Your task to perform on an android device: refresh tabs in the chrome app Image 0: 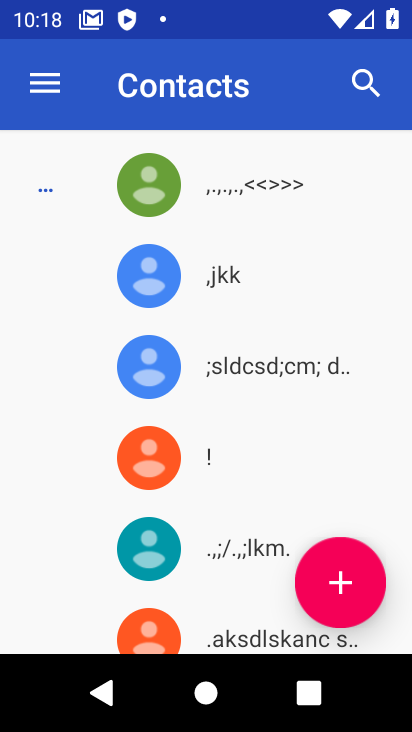
Step 0: press home button
Your task to perform on an android device: refresh tabs in the chrome app Image 1: 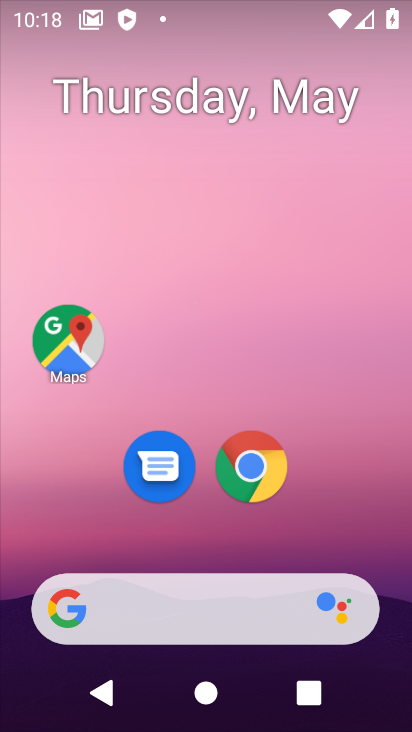
Step 1: click (264, 466)
Your task to perform on an android device: refresh tabs in the chrome app Image 2: 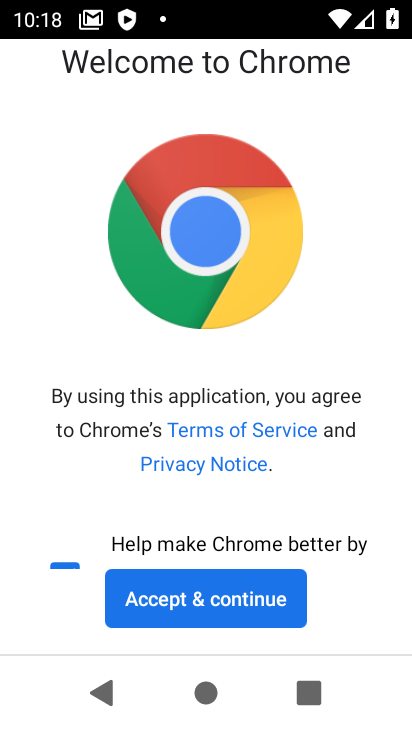
Step 2: click (204, 594)
Your task to perform on an android device: refresh tabs in the chrome app Image 3: 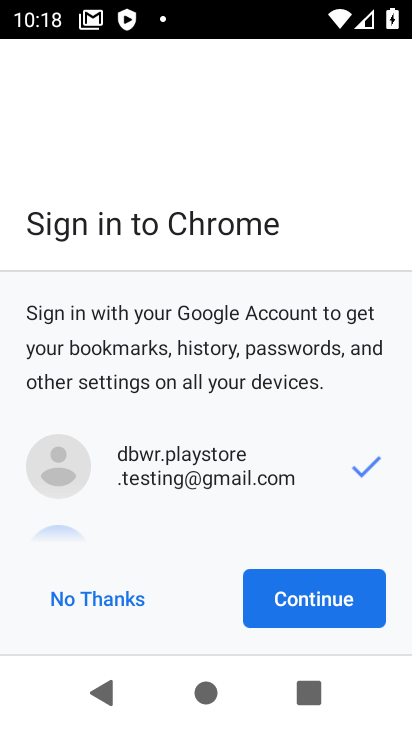
Step 3: click (287, 590)
Your task to perform on an android device: refresh tabs in the chrome app Image 4: 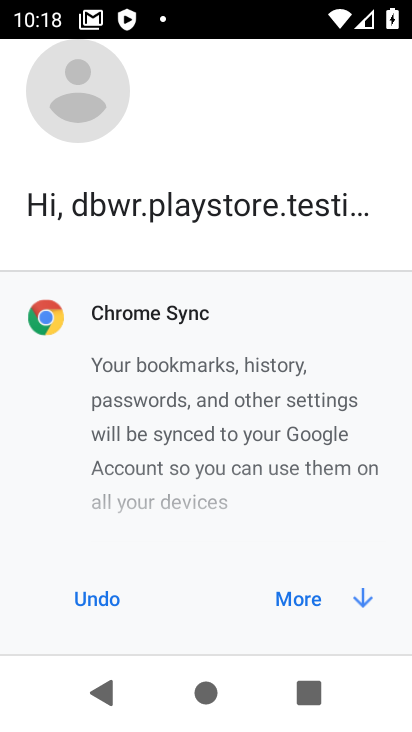
Step 4: click (300, 604)
Your task to perform on an android device: refresh tabs in the chrome app Image 5: 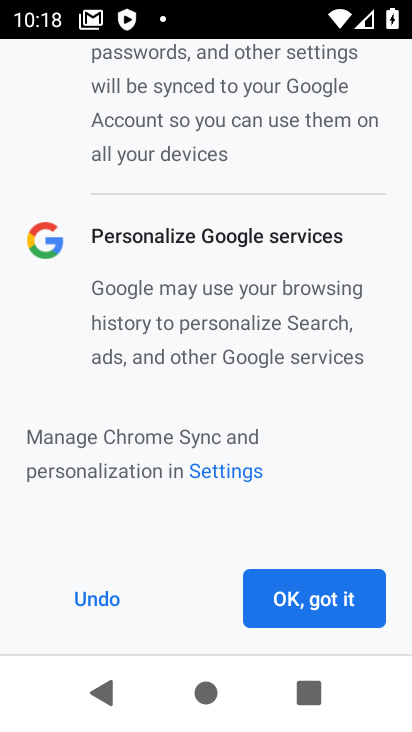
Step 5: click (300, 604)
Your task to perform on an android device: refresh tabs in the chrome app Image 6: 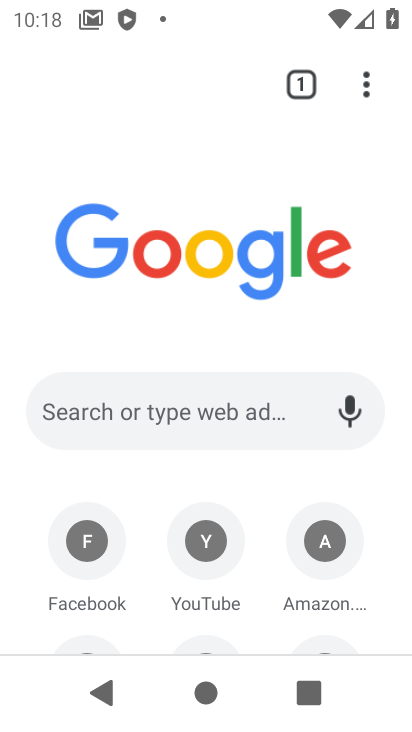
Step 6: click (368, 86)
Your task to perform on an android device: refresh tabs in the chrome app Image 7: 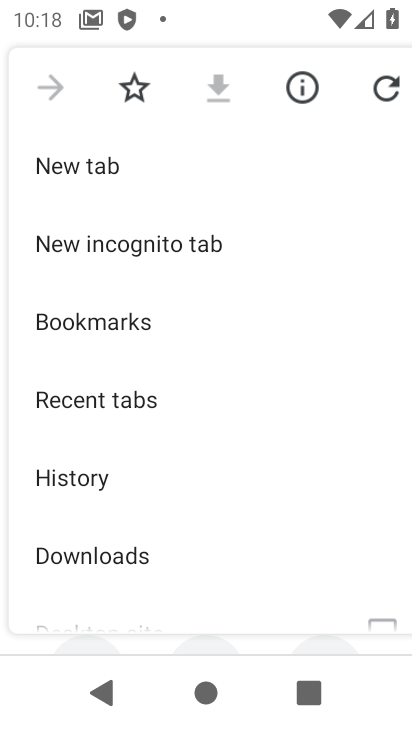
Step 7: click (397, 89)
Your task to perform on an android device: refresh tabs in the chrome app Image 8: 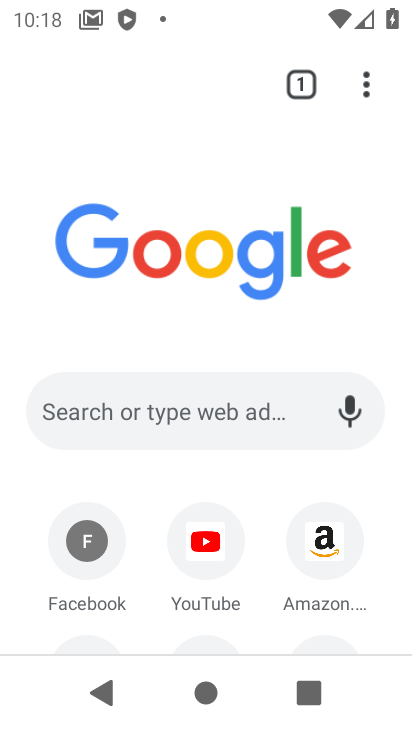
Step 8: task complete